Your task to perform on an android device: Open Maps and search for coffee Image 0: 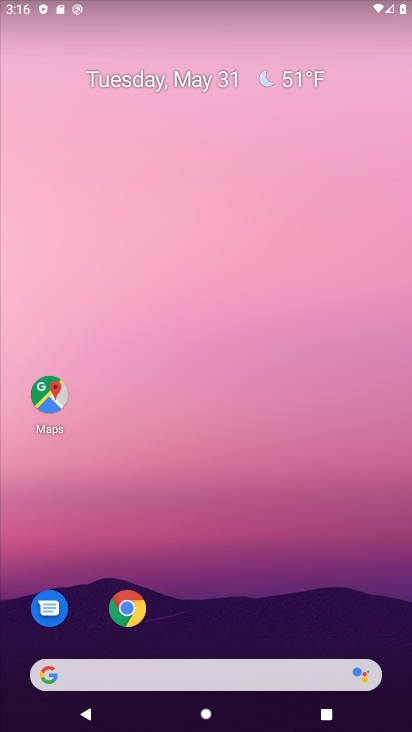
Step 0: drag from (293, 565) to (321, 0)
Your task to perform on an android device: Open Maps and search for coffee Image 1: 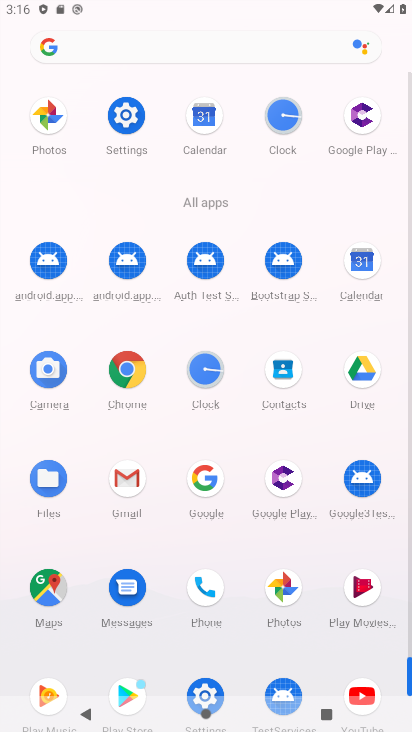
Step 1: click (55, 609)
Your task to perform on an android device: Open Maps and search for coffee Image 2: 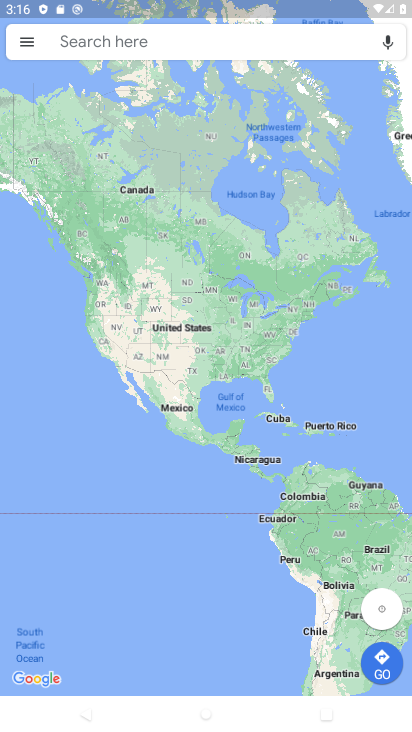
Step 2: click (248, 43)
Your task to perform on an android device: Open Maps and search for coffee Image 3: 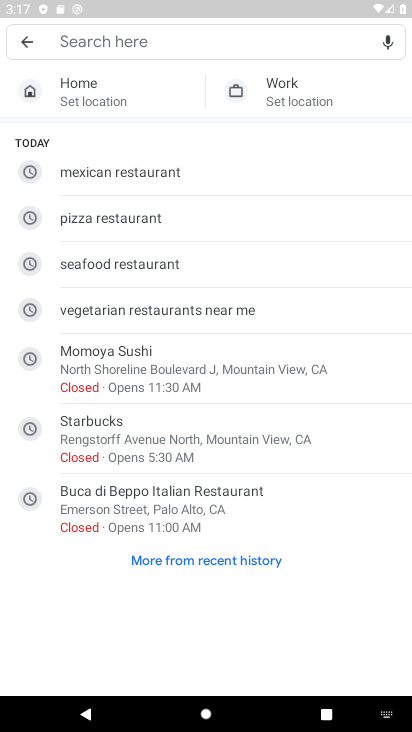
Step 3: type "coffee"
Your task to perform on an android device: Open Maps and search for coffee Image 4: 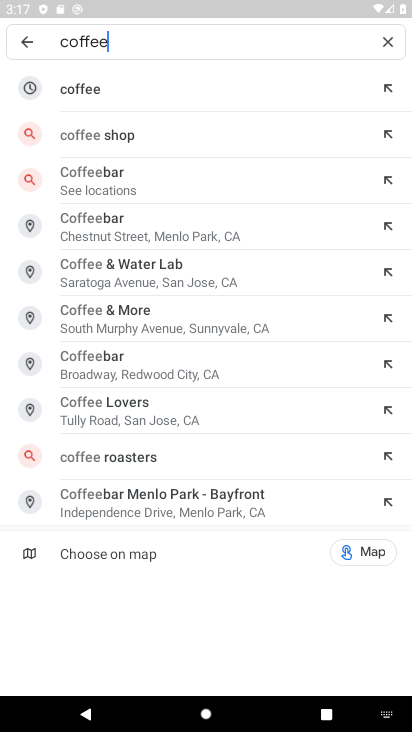
Step 4: click (137, 85)
Your task to perform on an android device: Open Maps and search for coffee Image 5: 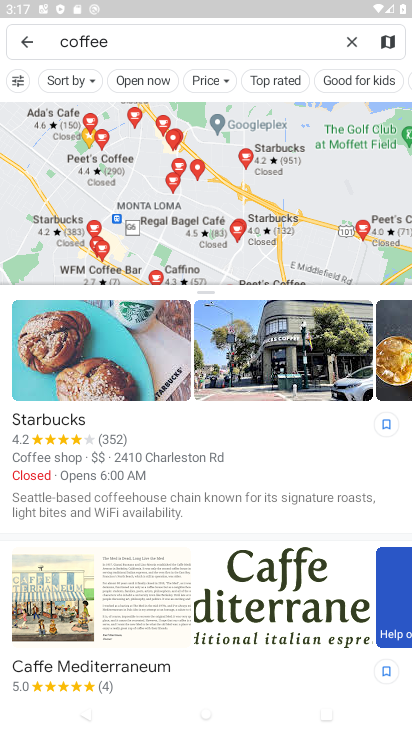
Step 5: task complete